Your task to perform on an android device: change keyboard looks Image 0: 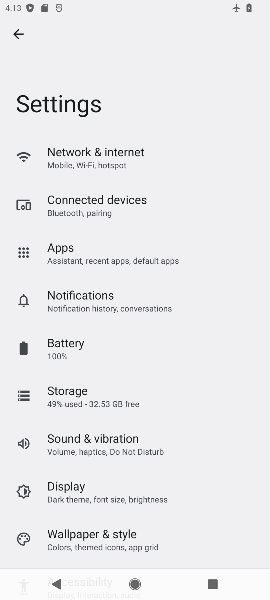
Step 0: drag from (129, 448) to (133, 153)
Your task to perform on an android device: change keyboard looks Image 1: 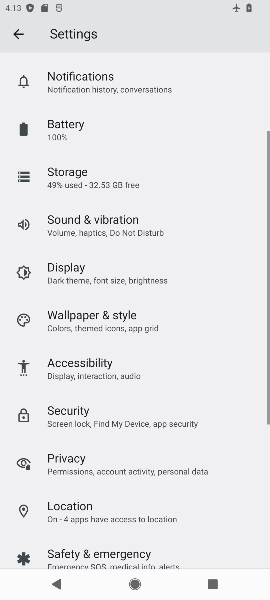
Step 1: drag from (179, 419) to (179, 119)
Your task to perform on an android device: change keyboard looks Image 2: 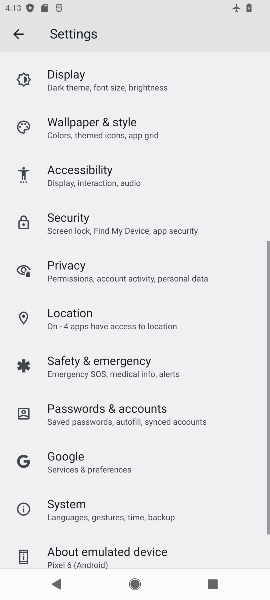
Step 2: drag from (163, 196) to (147, 75)
Your task to perform on an android device: change keyboard looks Image 3: 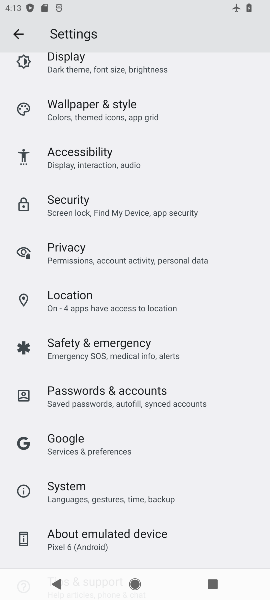
Step 3: drag from (145, 372) to (121, 52)
Your task to perform on an android device: change keyboard looks Image 4: 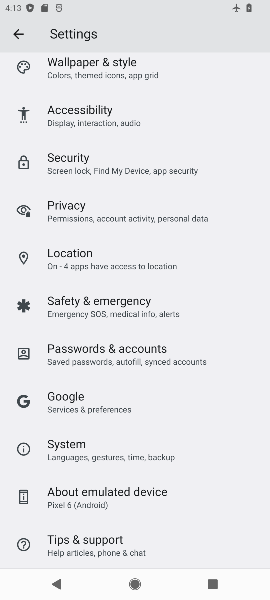
Step 4: click (112, 449)
Your task to perform on an android device: change keyboard looks Image 5: 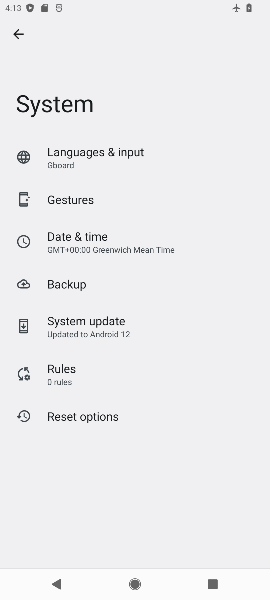
Step 5: click (129, 168)
Your task to perform on an android device: change keyboard looks Image 6: 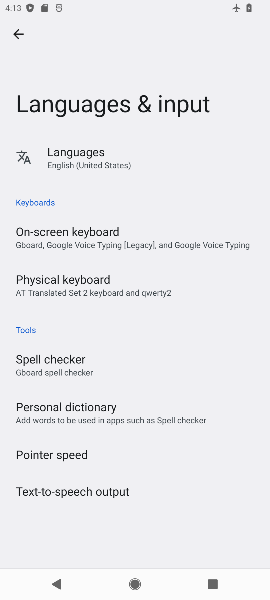
Step 6: click (114, 156)
Your task to perform on an android device: change keyboard looks Image 7: 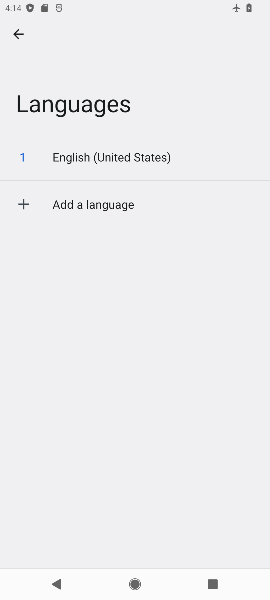
Step 7: click (21, 36)
Your task to perform on an android device: change keyboard looks Image 8: 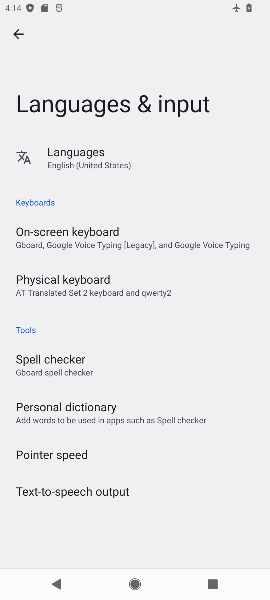
Step 8: click (122, 235)
Your task to perform on an android device: change keyboard looks Image 9: 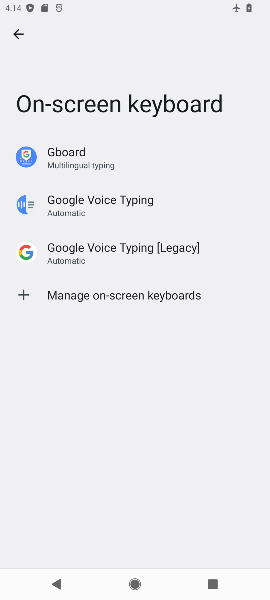
Step 9: click (86, 171)
Your task to perform on an android device: change keyboard looks Image 10: 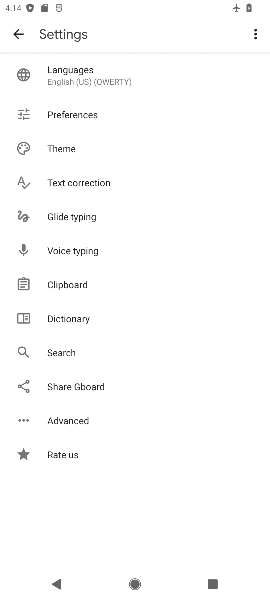
Step 10: click (86, 153)
Your task to perform on an android device: change keyboard looks Image 11: 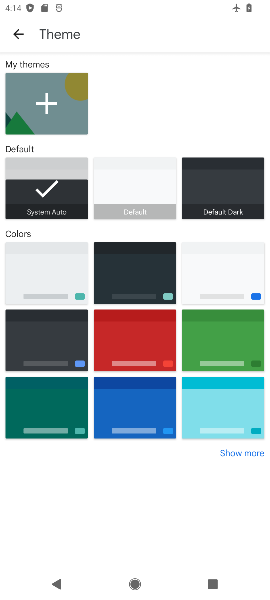
Step 11: click (126, 330)
Your task to perform on an android device: change keyboard looks Image 12: 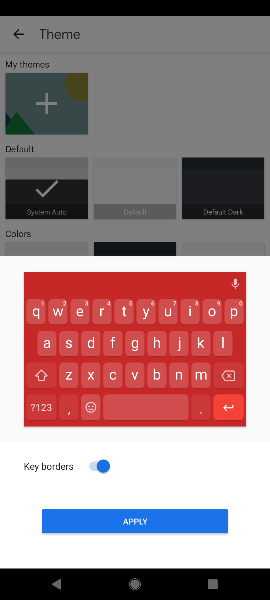
Step 12: click (153, 525)
Your task to perform on an android device: change keyboard looks Image 13: 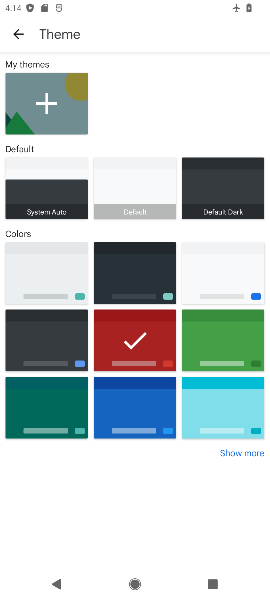
Step 13: task complete